Your task to perform on an android device: Open Reddit.com Image 0: 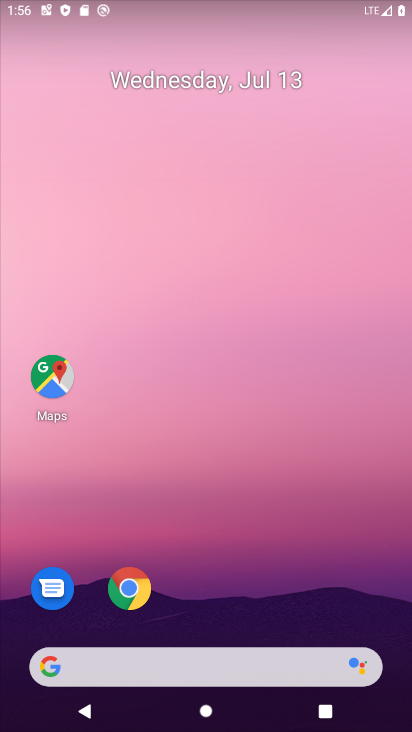
Step 0: click (126, 585)
Your task to perform on an android device: Open Reddit.com Image 1: 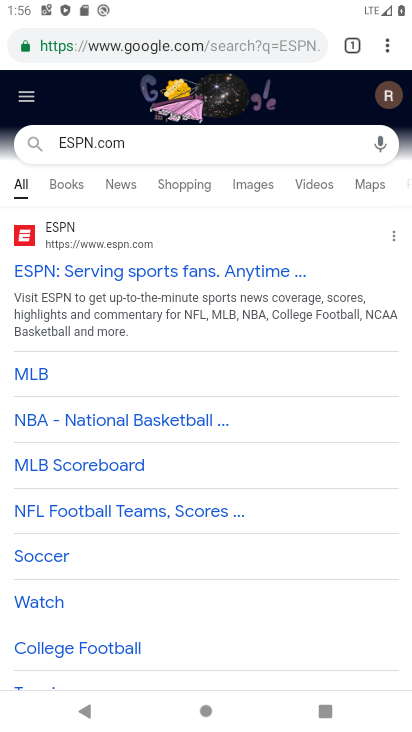
Step 1: click (321, 39)
Your task to perform on an android device: Open Reddit.com Image 2: 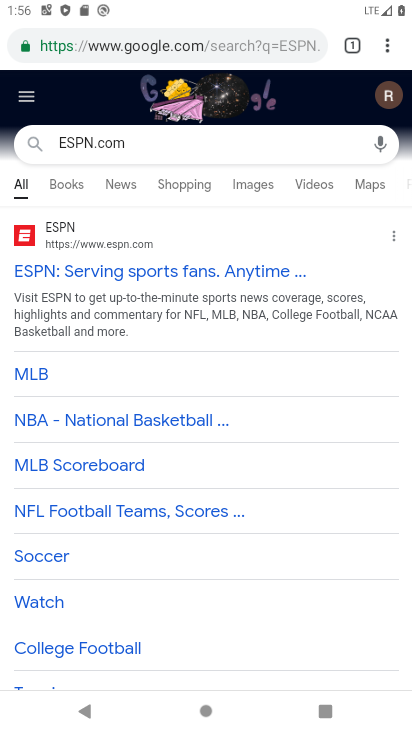
Step 2: click (309, 38)
Your task to perform on an android device: Open Reddit.com Image 3: 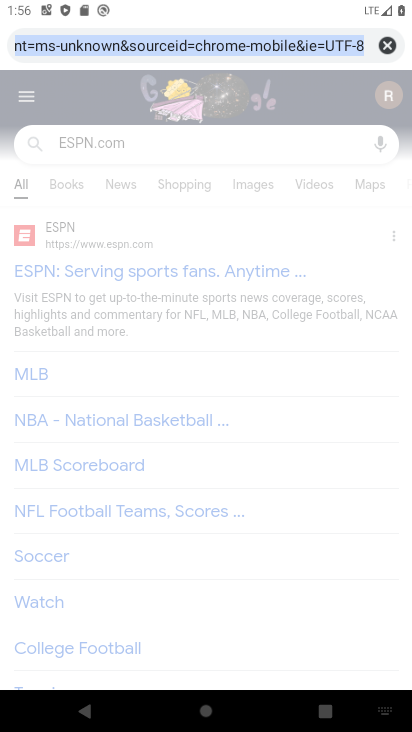
Step 3: click (392, 43)
Your task to perform on an android device: Open Reddit.com Image 4: 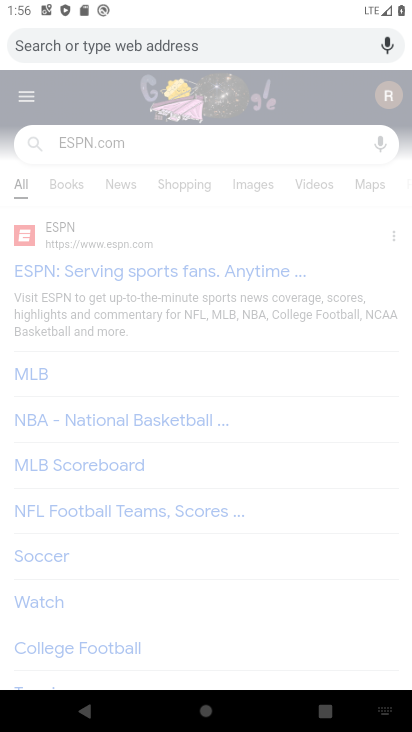
Step 4: type "Reddit.com"
Your task to perform on an android device: Open Reddit.com Image 5: 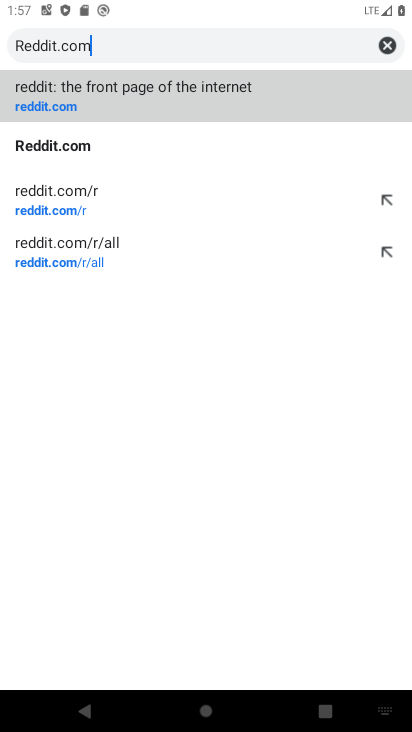
Step 5: click (75, 142)
Your task to perform on an android device: Open Reddit.com Image 6: 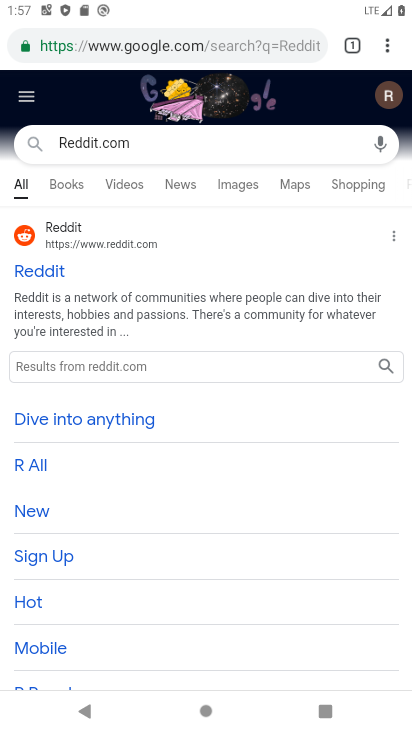
Step 6: task complete